Your task to perform on an android device: Open wifi settings Image 0: 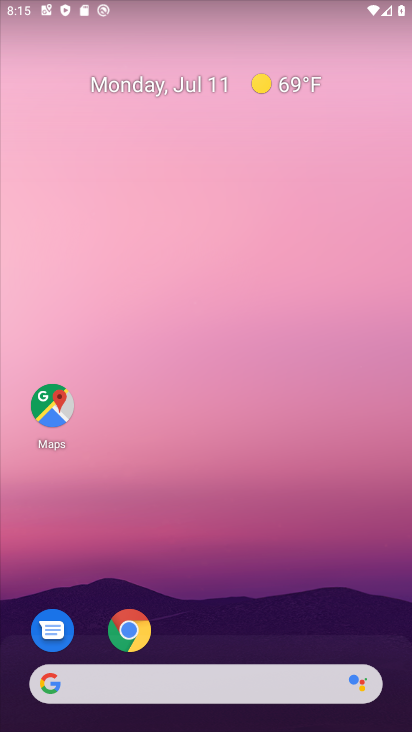
Step 0: drag from (169, 676) to (53, 42)
Your task to perform on an android device: Open wifi settings Image 1: 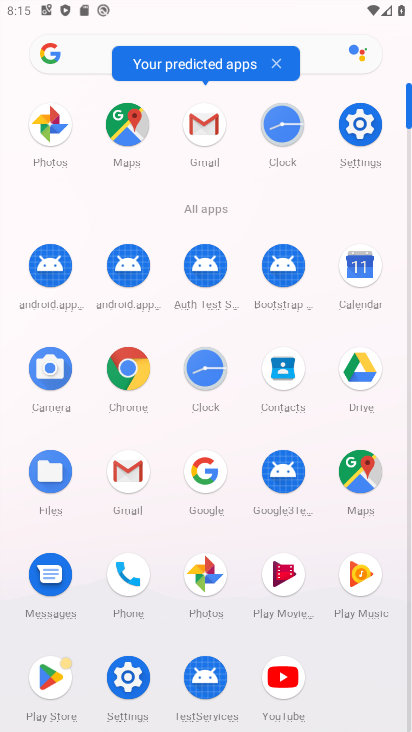
Step 1: click (357, 149)
Your task to perform on an android device: Open wifi settings Image 2: 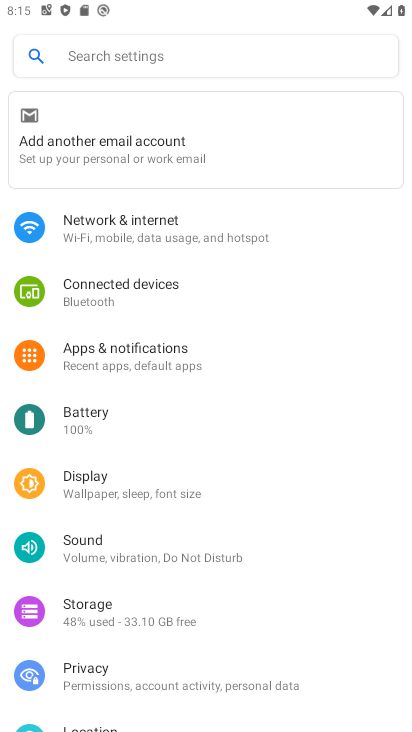
Step 2: click (198, 251)
Your task to perform on an android device: Open wifi settings Image 3: 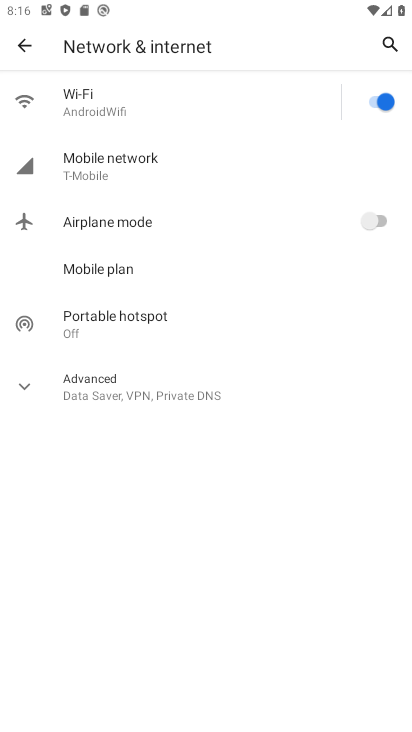
Step 3: click (88, 124)
Your task to perform on an android device: Open wifi settings Image 4: 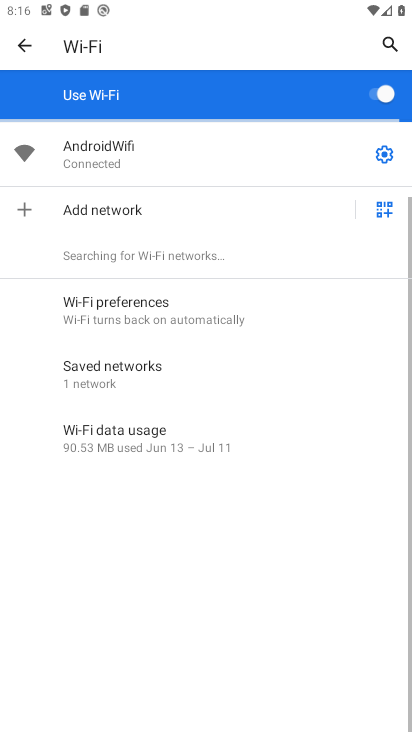
Step 4: task complete